Your task to perform on an android device: Open calendar and show me the first week of next month Image 0: 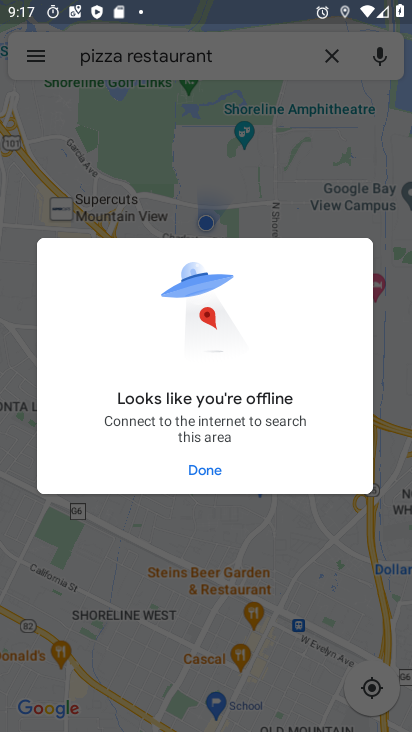
Step 0: press home button
Your task to perform on an android device: Open calendar and show me the first week of next month Image 1: 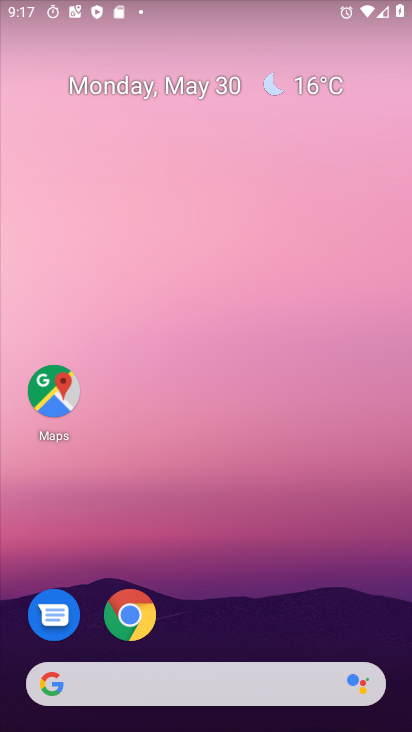
Step 1: drag from (321, 578) to (322, 48)
Your task to perform on an android device: Open calendar and show me the first week of next month Image 2: 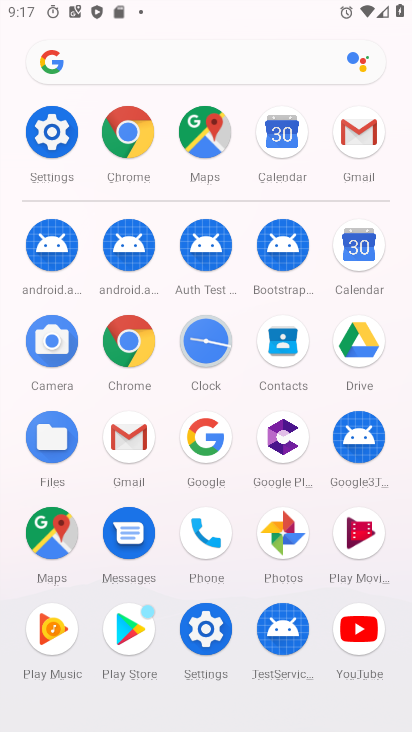
Step 2: click (372, 251)
Your task to perform on an android device: Open calendar and show me the first week of next month Image 3: 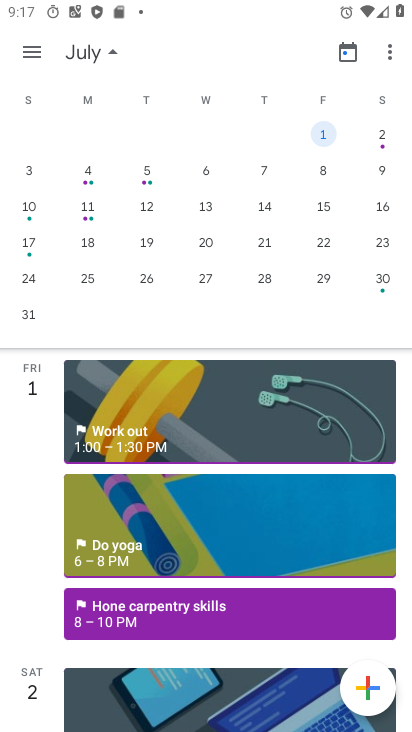
Step 3: drag from (322, 250) to (404, 704)
Your task to perform on an android device: Open calendar and show me the first week of next month Image 4: 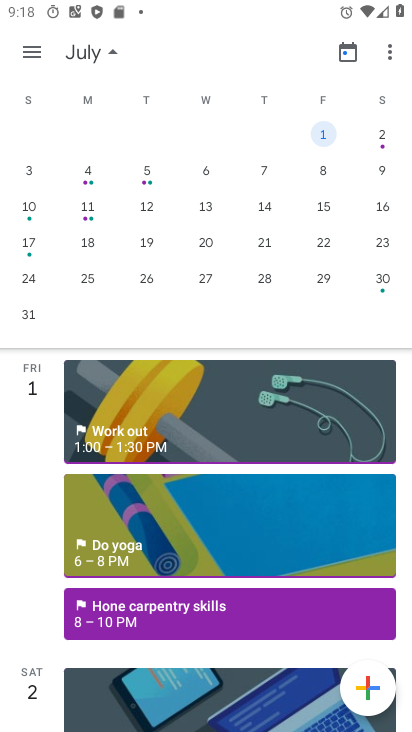
Step 4: click (79, 182)
Your task to perform on an android device: Open calendar and show me the first week of next month Image 5: 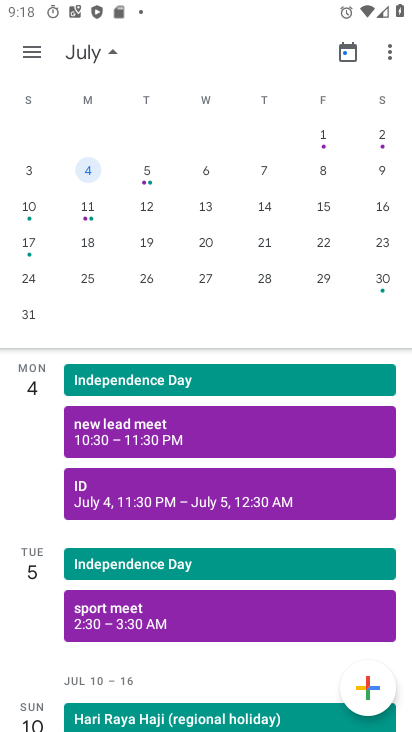
Step 5: task complete